Your task to perform on an android device: Turn off the flashlight Image 0: 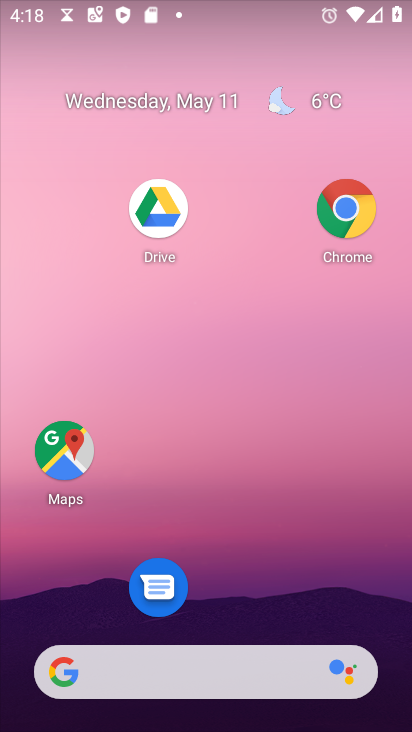
Step 0: drag from (250, 472) to (251, 109)
Your task to perform on an android device: Turn off the flashlight Image 1: 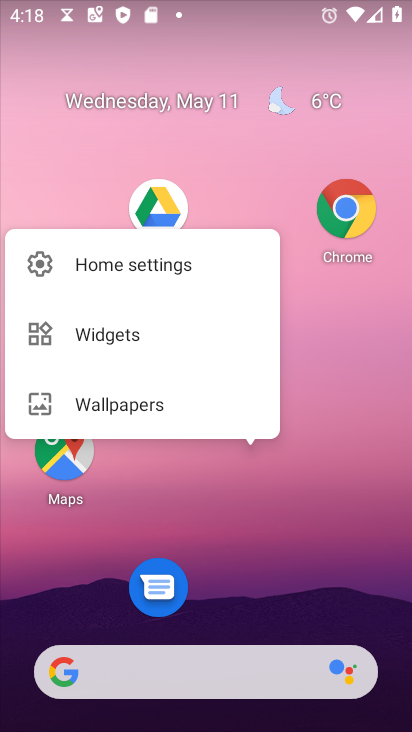
Step 1: click (313, 475)
Your task to perform on an android device: Turn off the flashlight Image 2: 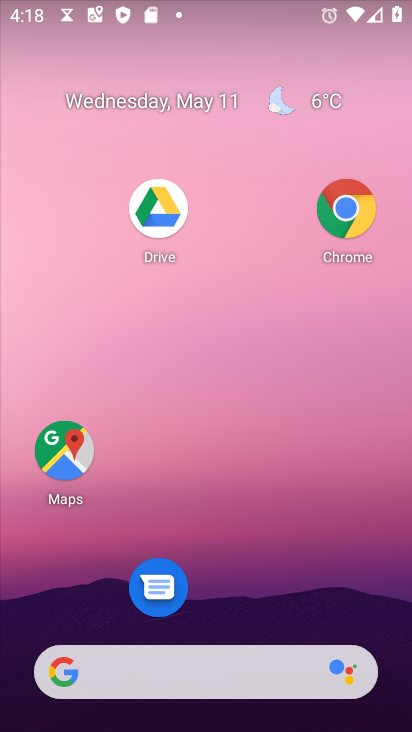
Step 2: drag from (271, 482) to (287, 138)
Your task to perform on an android device: Turn off the flashlight Image 3: 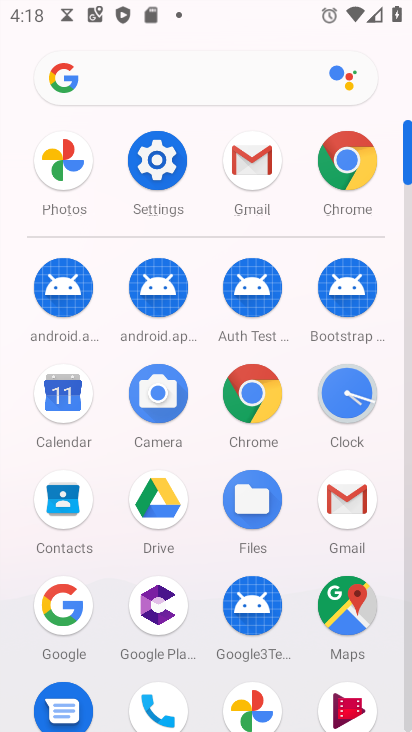
Step 3: click (137, 159)
Your task to perform on an android device: Turn off the flashlight Image 4: 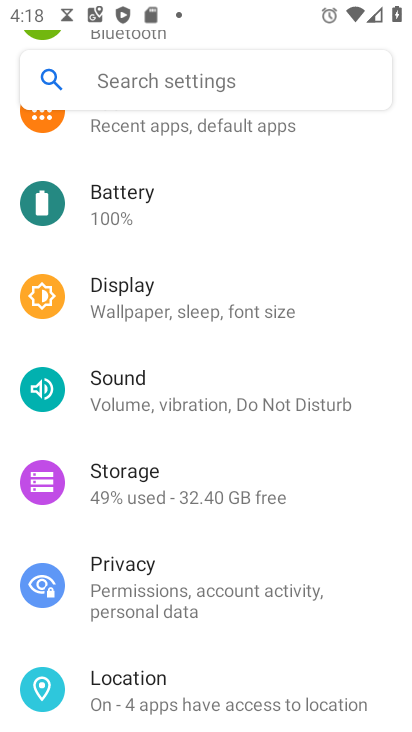
Step 4: click (222, 130)
Your task to perform on an android device: Turn off the flashlight Image 5: 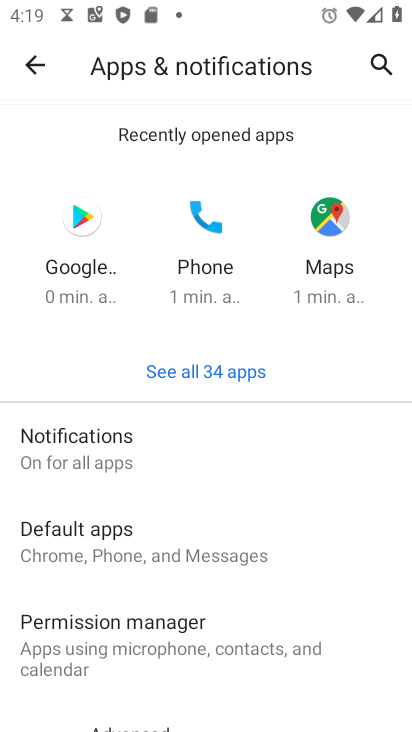
Step 5: task complete